Your task to perform on an android device: turn pop-ups on in chrome Image 0: 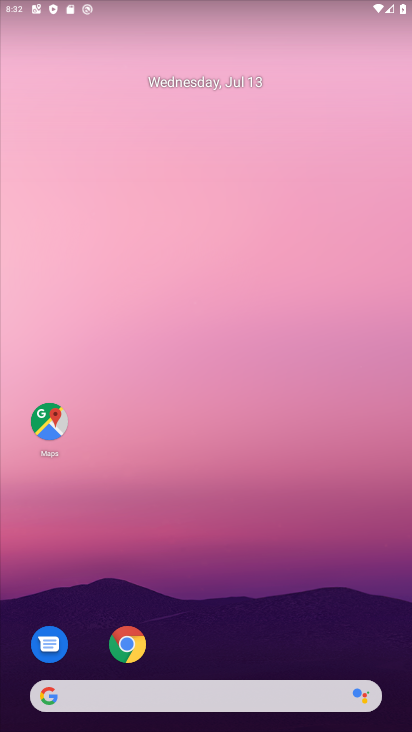
Step 0: click (124, 641)
Your task to perform on an android device: turn pop-ups on in chrome Image 1: 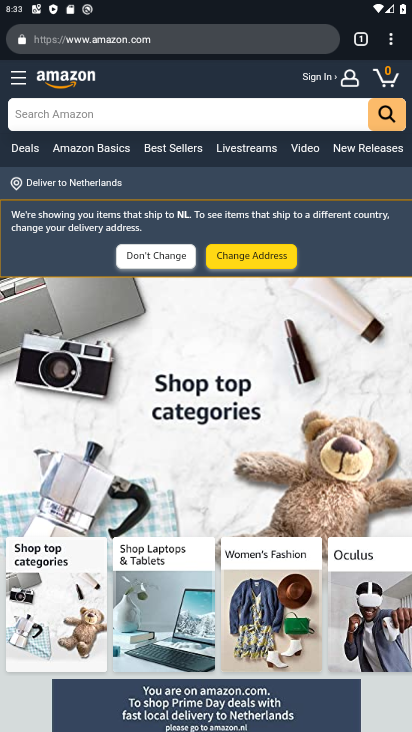
Step 1: click (390, 43)
Your task to perform on an android device: turn pop-ups on in chrome Image 2: 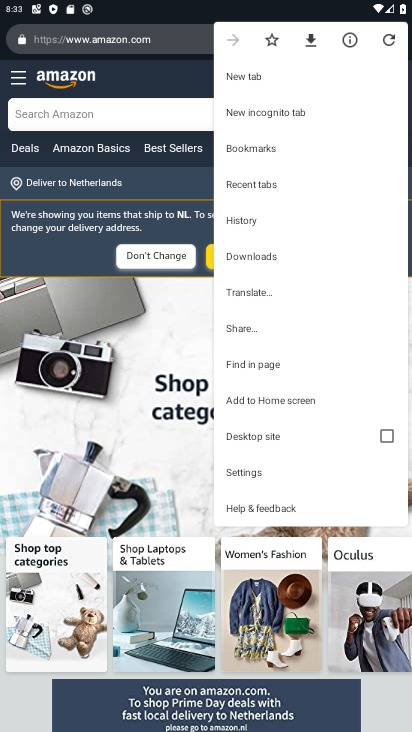
Step 2: click (248, 471)
Your task to perform on an android device: turn pop-ups on in chrome Image 3: 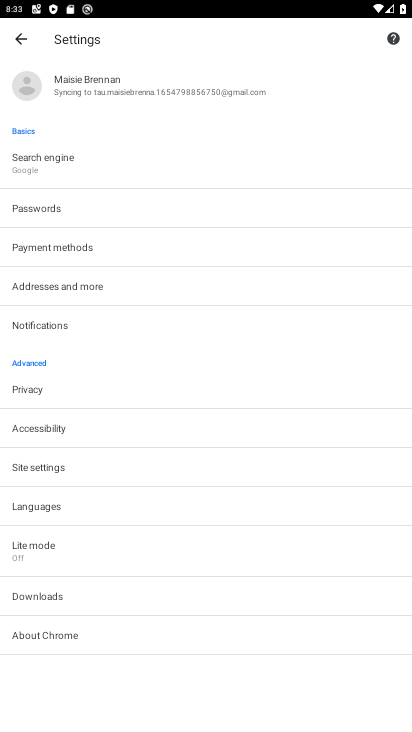
Step 3: click (42, 462)
Your task to perform on an android device: turn pop-ups on in chrome Image 4: 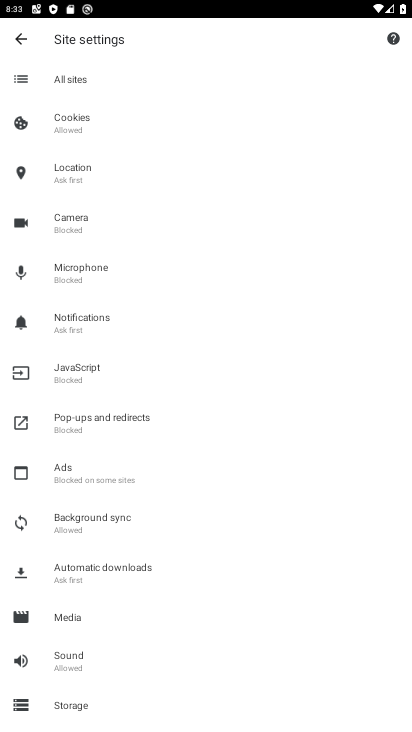
Step 4: click (59, 416)
Your task to perform on an android device: turn pop-ups on in chrome Image 5: 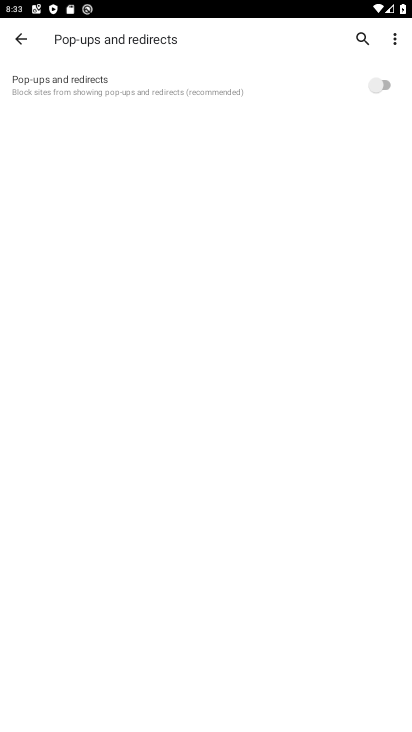
Step 5: click (381, 84)
Your task to perform on an android device: turn pop-ups on in chrome Image 6: 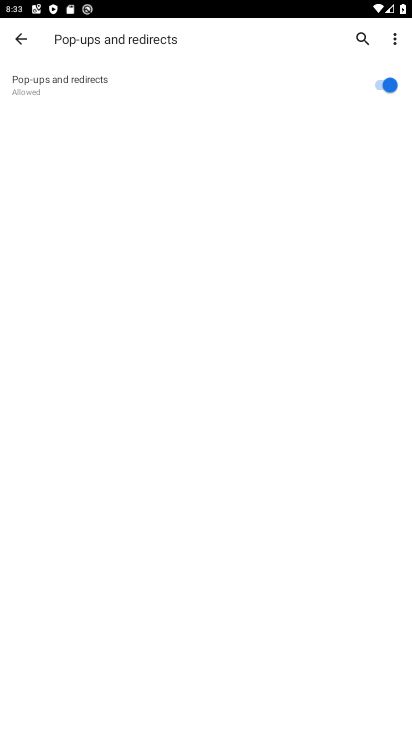
Step 6: task complete